Your task to perform on an android device: Open eBay Image 0: 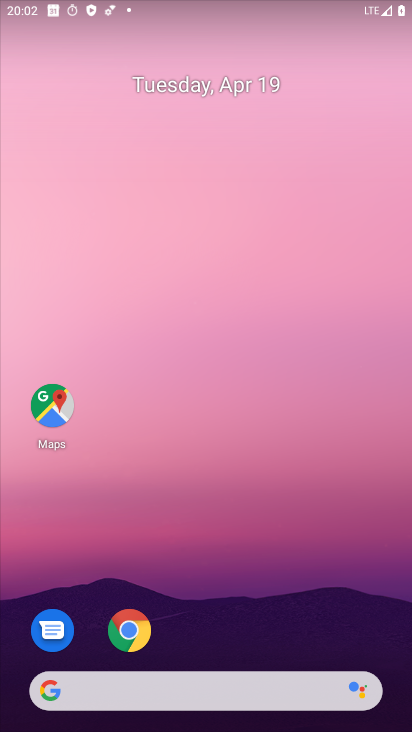
Step 0: click (131, 626)
Your task to perform on an android device: Open eBay Image 1: 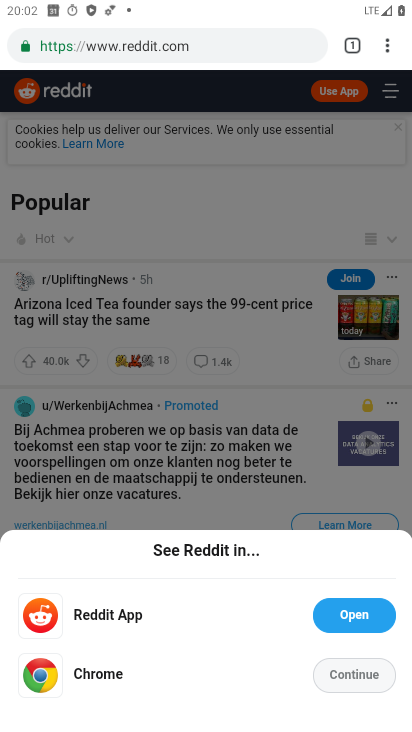
Step 1: click (351, 44)
Your task to perform on an android device: Open eBay Image 2: 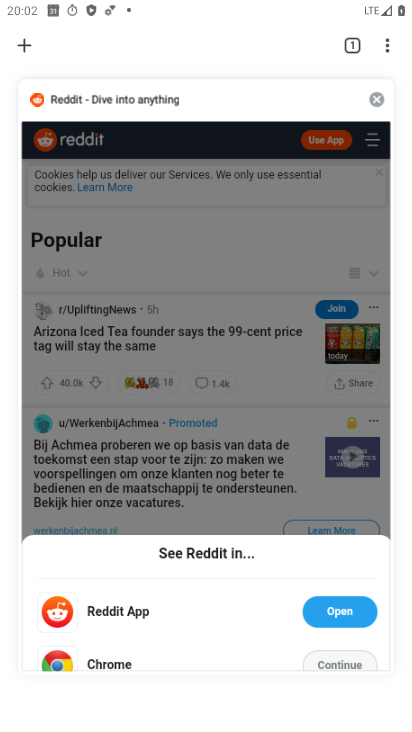
Step 2: click (19, 47)
Your task to perform on an android device: Open eBay Image 3: 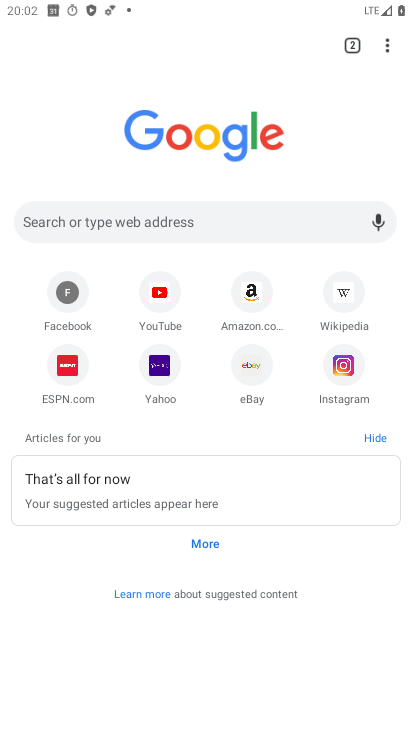
Step 3: click (256, 358)
Your task to perform on an android device: Open eBay Image 4: 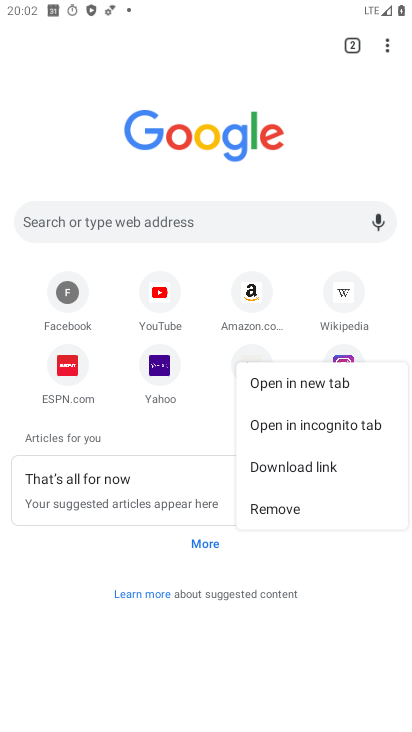
Step 4: click (267, 390)
Your task to perform on an android device: Open eBay Image 5: 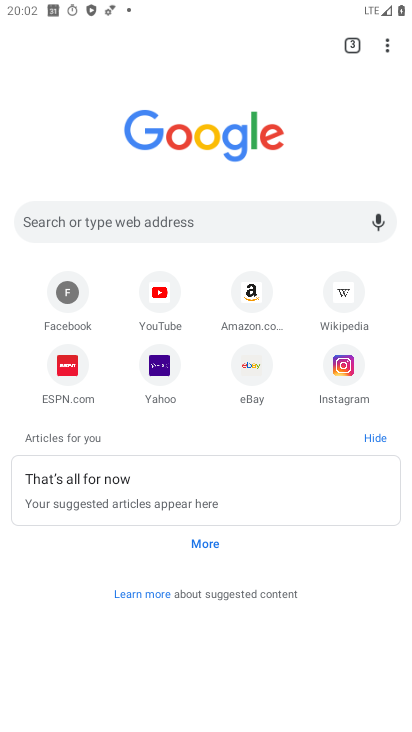
Step 5: click (251, 366)
Your task to perform on an android device: Open eBay Image 6: 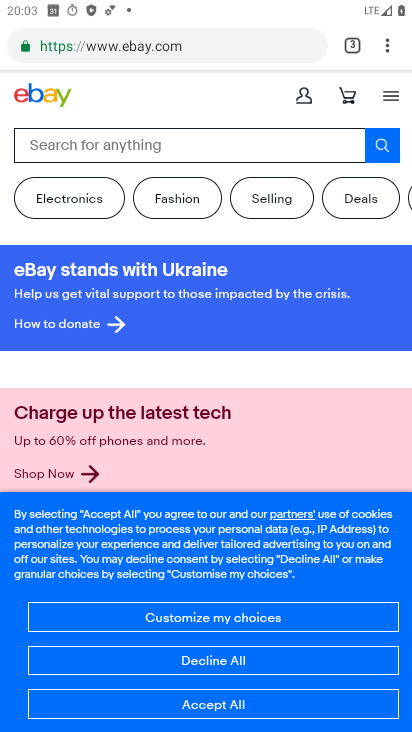
Step 6: task complete